Your task to perform on an android device: change the clock display to show seconds Image 0: 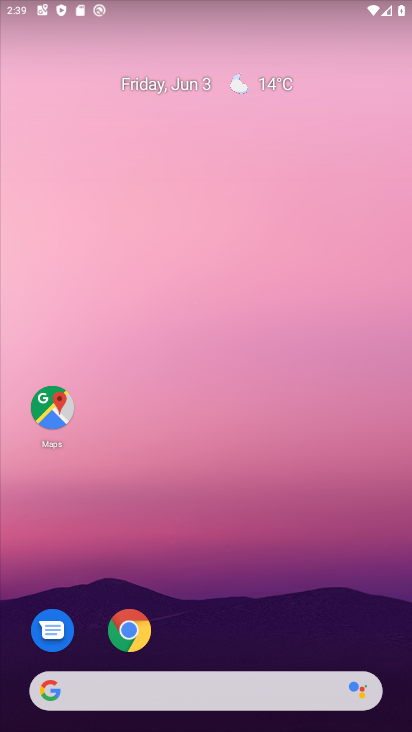
Step 0: drag from (255, 630) to (225, 175)
Your task to perform on an android device: change the clock display to show seconds Image 1: 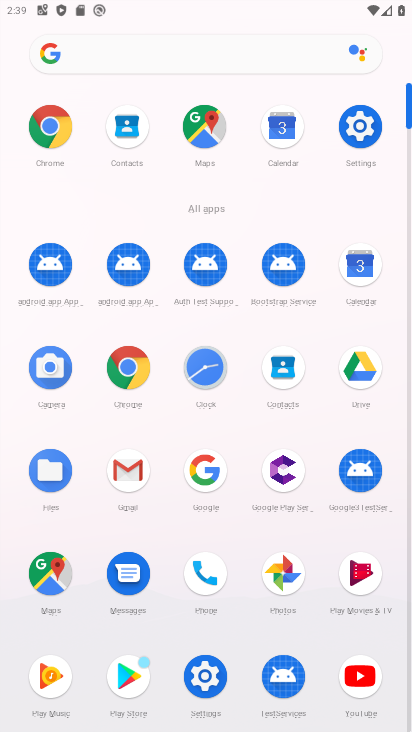
Step 1: click (215, 356)
Your task to perform on an android device: change the clock display to show seconds Image 2: 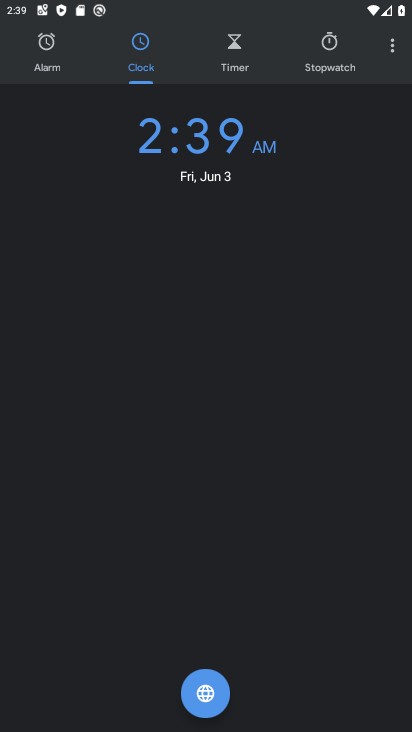
Step 2: click (400, 54)
Your task to perform on an android device: change the clock display to show seconds Image 3: 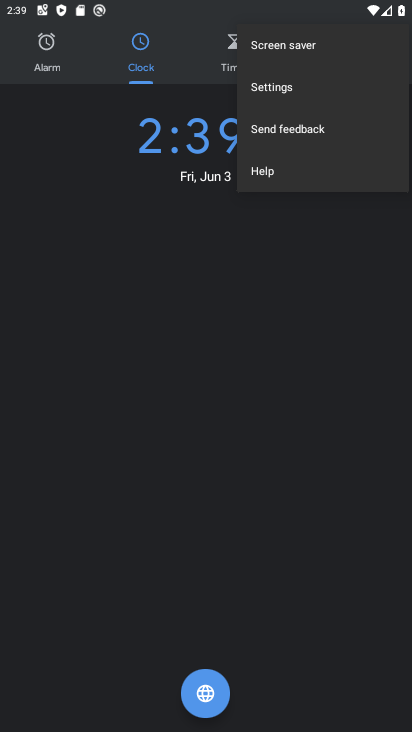
Step 3: click (337, 84)
Your task to perform on an android device: change the clock display to show seconds Image 4: 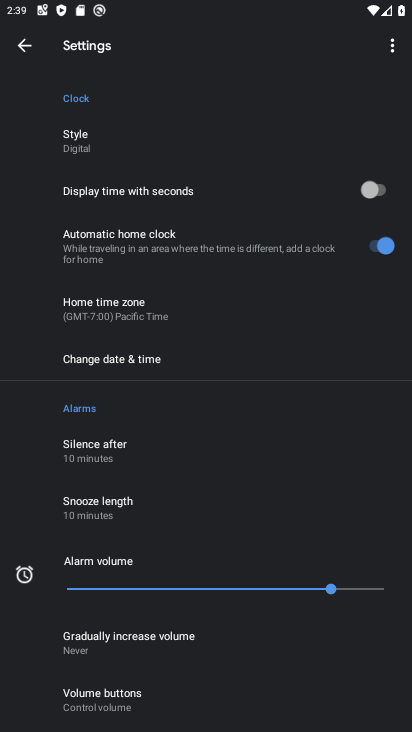
Step 4: click (382, 190)
Your task to perform on an android device: change the clock display to show seconds Image 5: 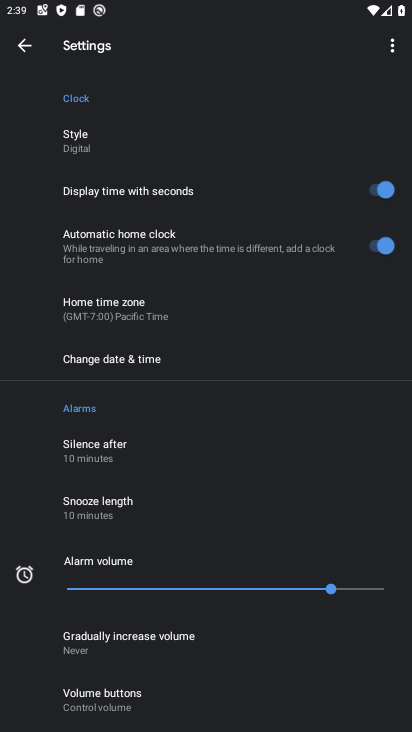
Step 5: task complete